Your task to perform on an android device: Open Chrome and go to settings Image 0: 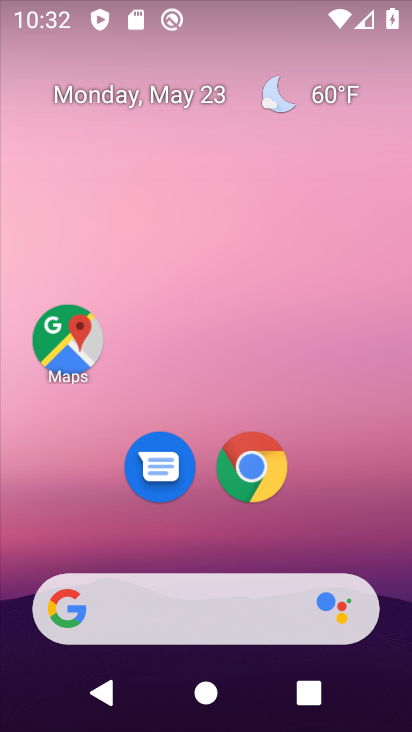
Step 0: drag from (331, 611) to (401, 76)
Your task to perform on an android device: Open Chrome and go to settings Image 1: 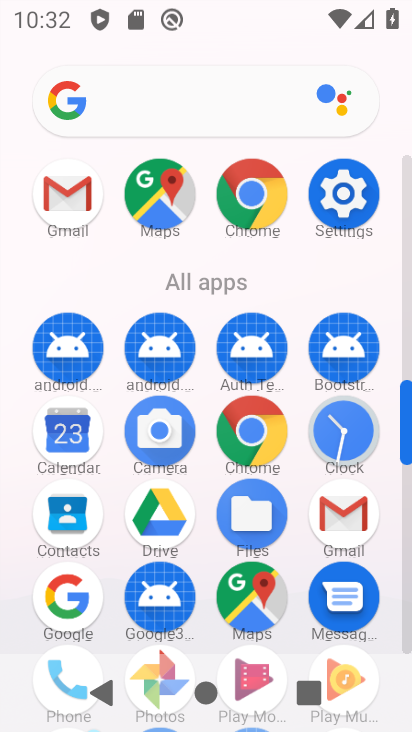
Step 1: click (244, 456)
Your task to perform on an android device: Open Chrome and go to settings Image 2: 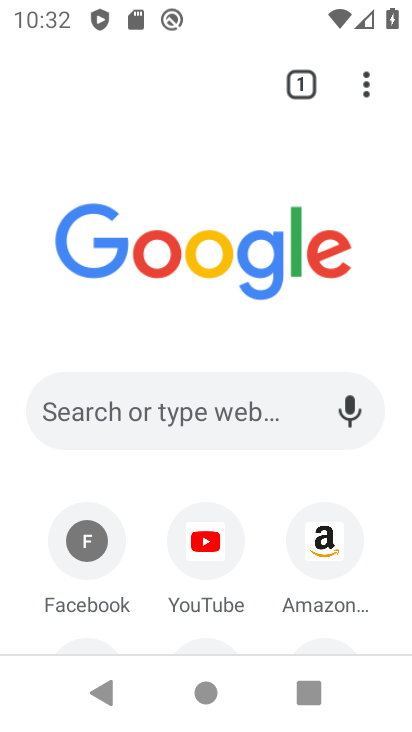
Step 2: click (376, 70)
Your task to perform on an android device: Open Chrome and go to settings Image 3: 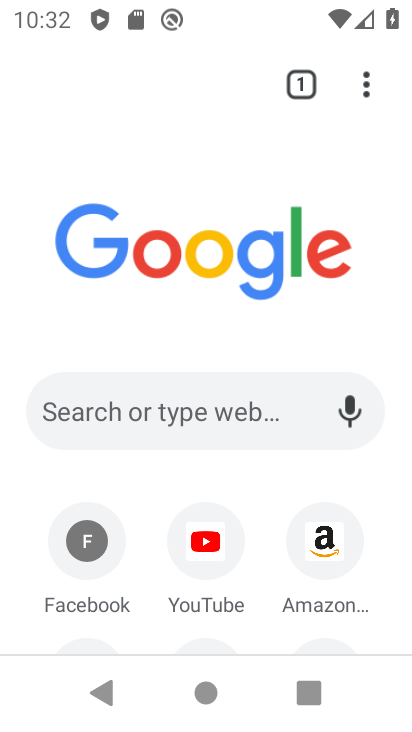
Step 3: task complete